Your task to perform on an android device: open app "Google Chrome" (install if not already installed) Image 0: 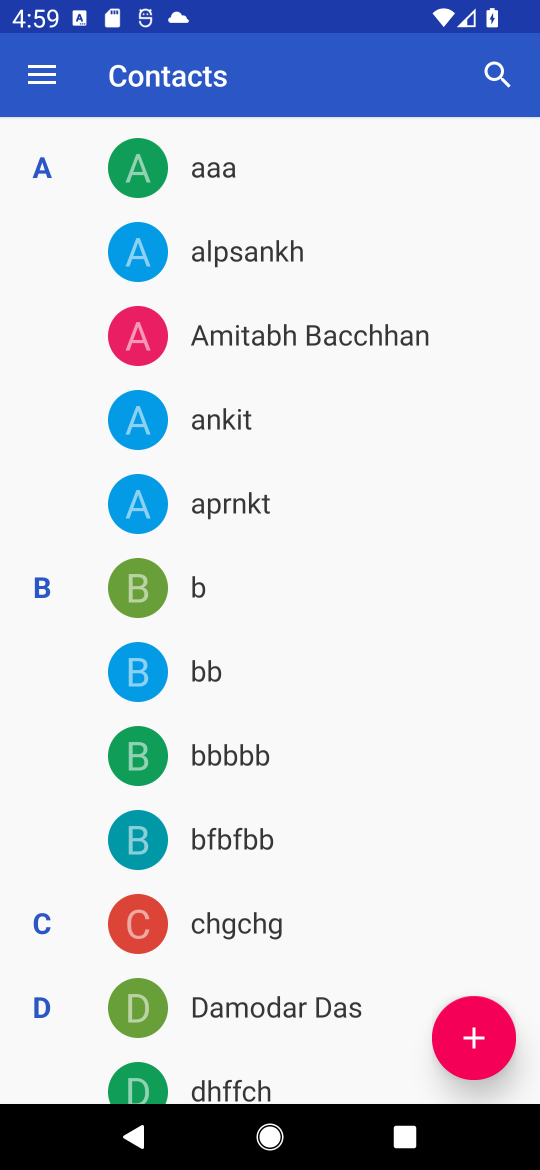
Step 0: press home button
Your task to perform on an android device: open app "Google Chrome" (install if not already installed) Image 1: 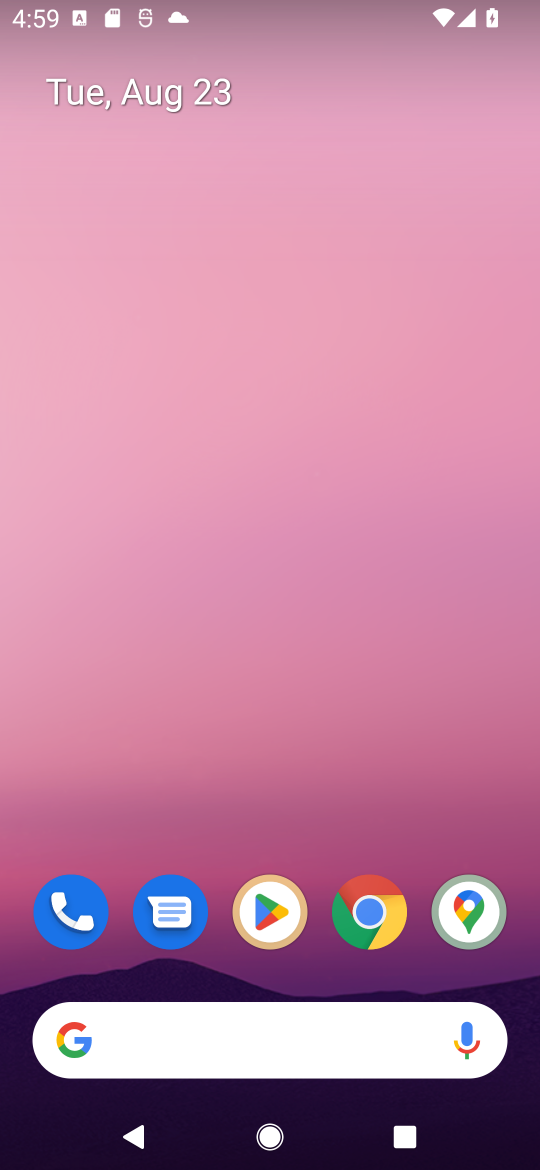
Step 1: drag from (250, 1007) to (254, 59)
Your task to perform on an android device: open app "Google Chrome" (install if not already installed) Image 2: 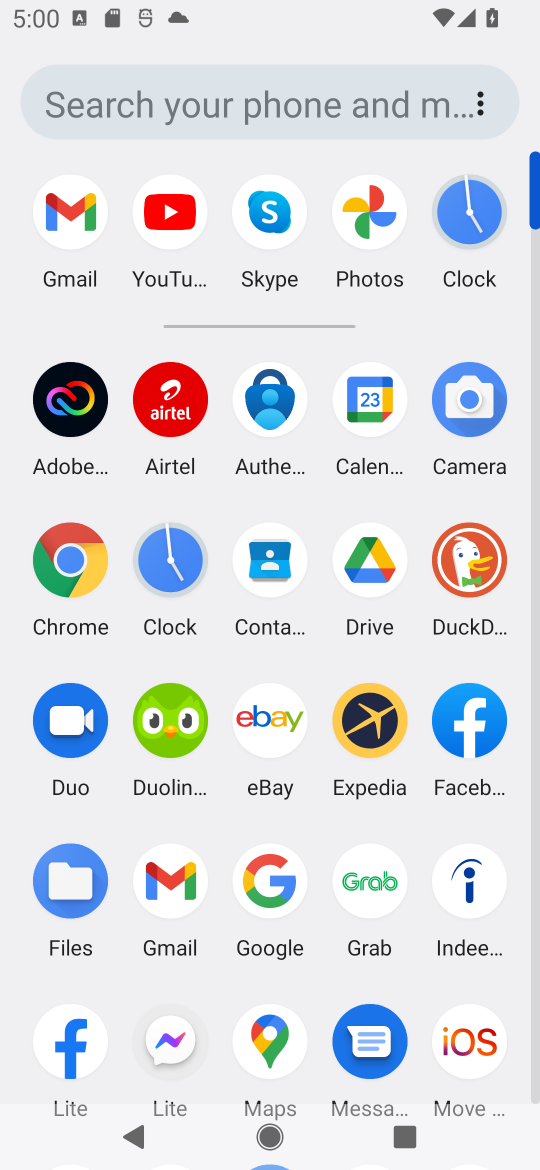
Step 2: click (75, 558)
Your task to perform on an android device: open app "Google Chrome" (install if not already installed) Image 3: 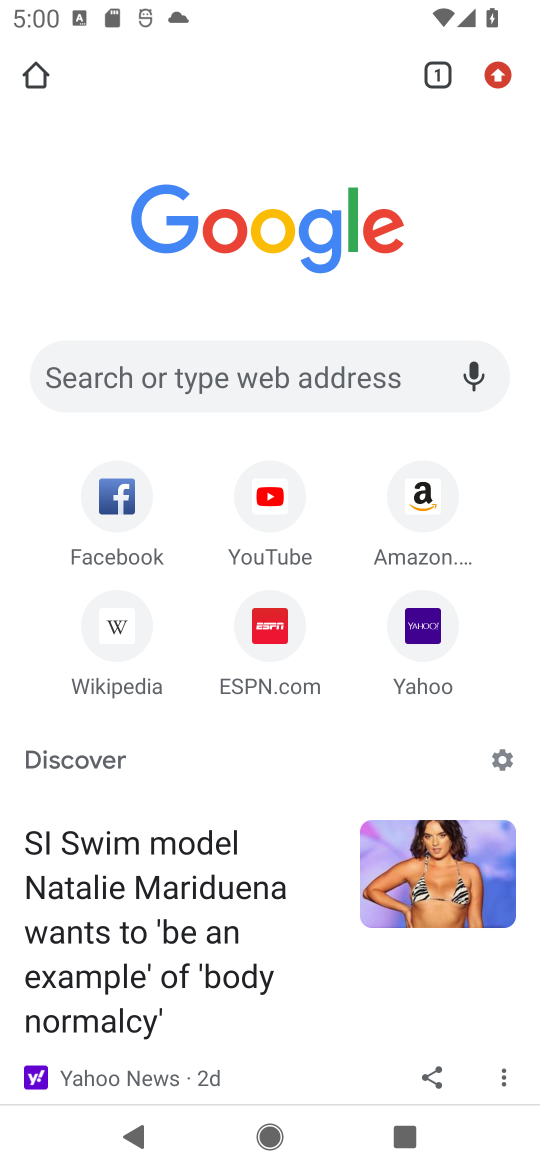
Step 3: task complete